Your task to perform on an android device: turn off data saver in the chrome app Image 0: 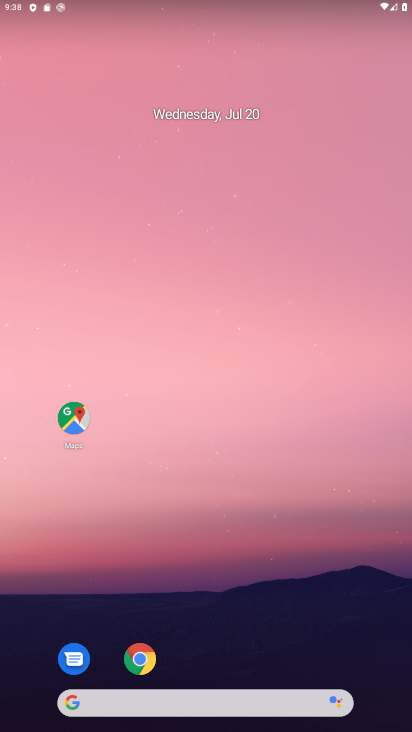
Step 0: click (132, 656)
Your task to perform on an android device: turn off data saver in the chrome app Image 1: 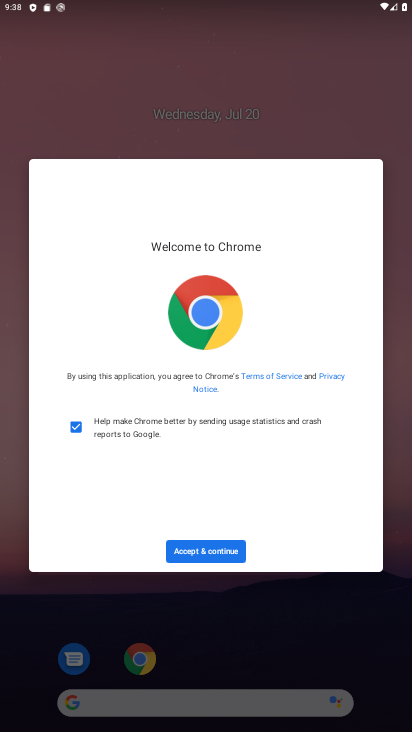
Step 1: click (232, 541)
Your task to perform on an android device: turn off data saver in the chrome app Image 2: 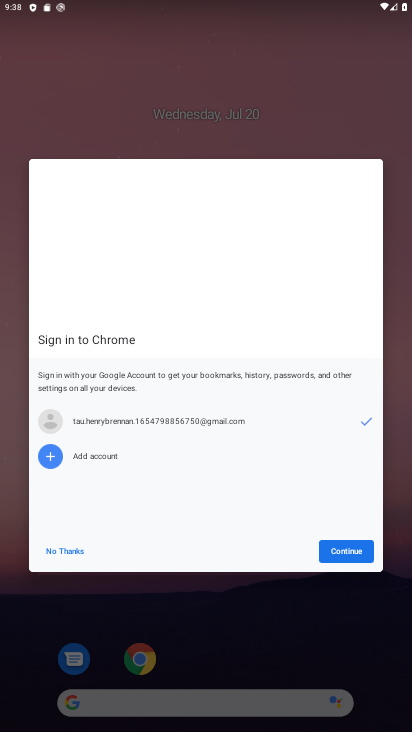
Step 2: click (330, 553)
Your task to perform on an android device: turn off data saver in the chrome app Image 3: 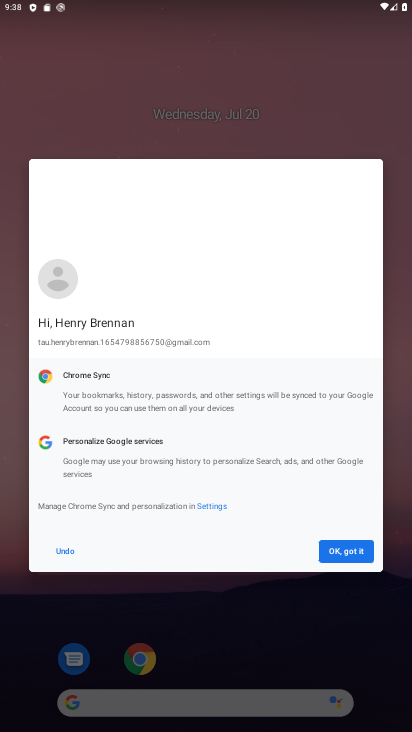
Step 3: click (330, 553)
Your task to perform on an android device: turn off data saver in the chrome app Image 4: 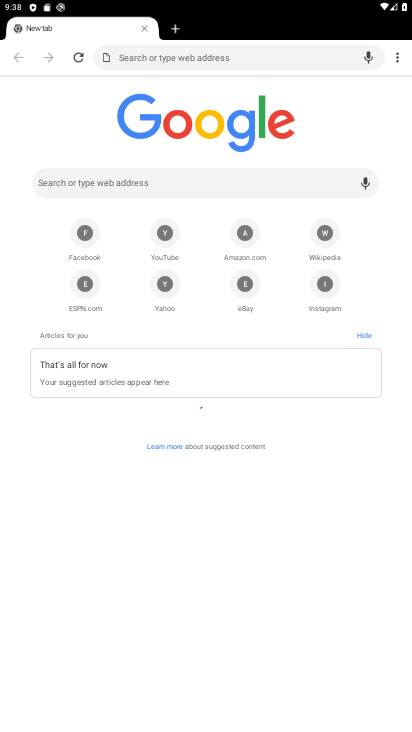
Step 4: click (388, 51)
Your task to perform on an android device: turn off data saver in the chrome app Image 5: 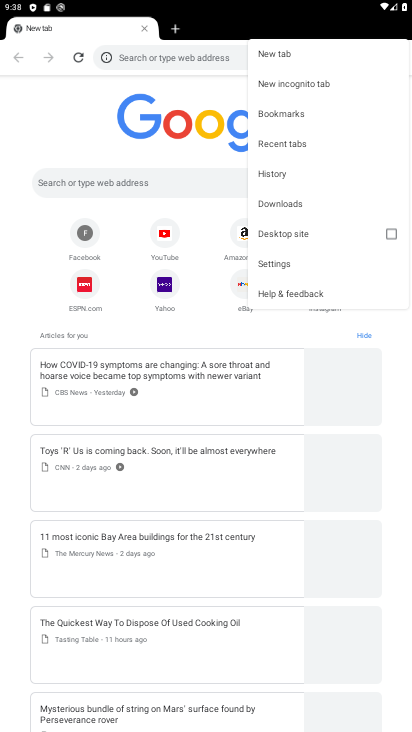
Step 5: click (291, 273)
Your task to perform on an android device: turn off data saver in the chrome app Image 6: 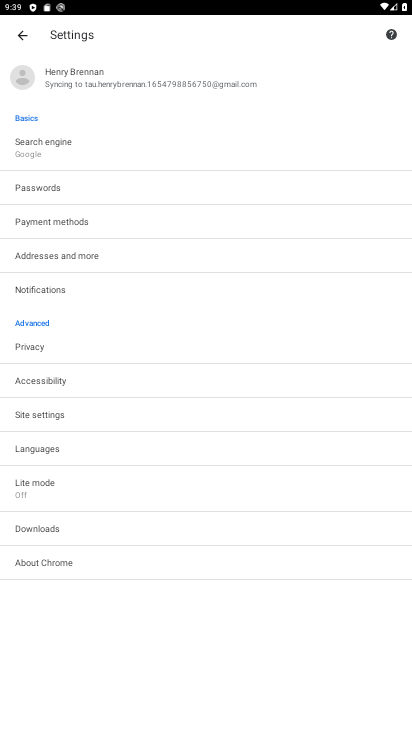
Step 6: click (74, 476)
Your task to perform on an android device: turn off data saver in the chrome app Image 7: 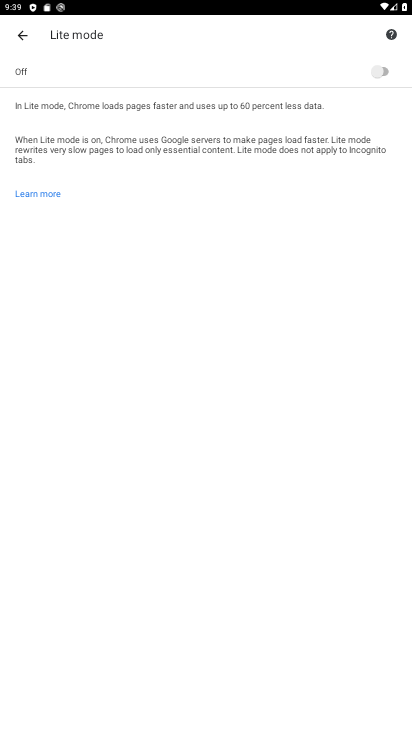
Step 7: task complete